Your task to perform on an android device: Open internet settings Image 0: 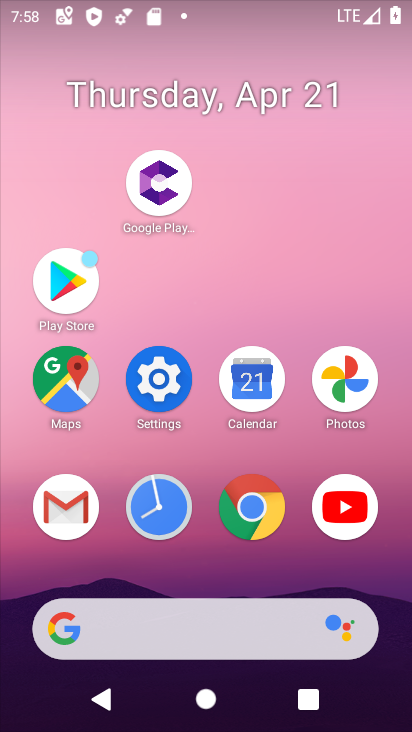
Step 0: click (155, 378)
Your task to perform on an android device: Open internet settings Image 1: 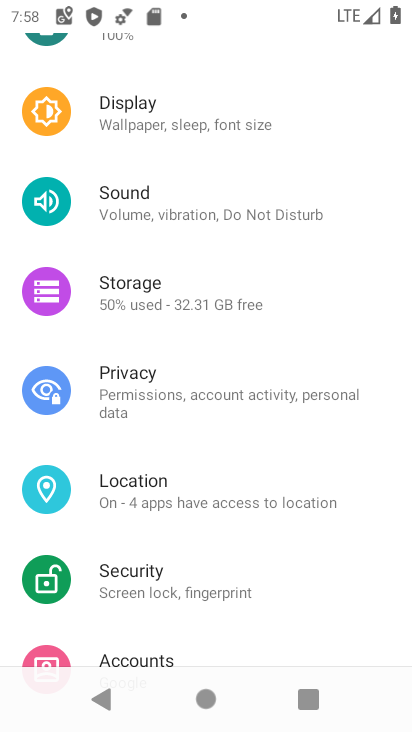
Step 1: drag from (348, 152) to (342, 619)
Your task to perform on an android device: Open internet settings Image 2: 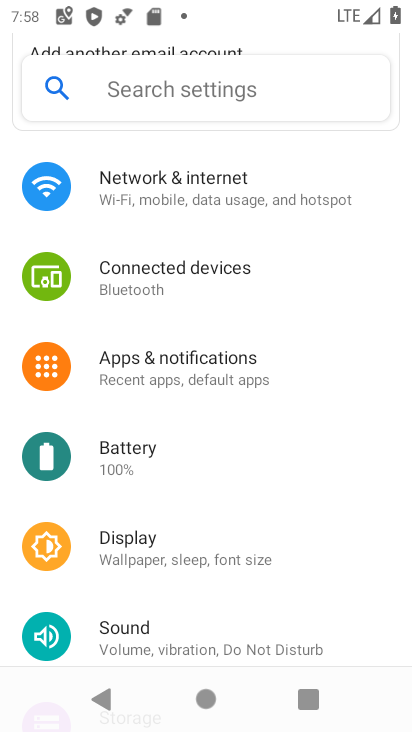
Step 2: click (161, 179)
Your task to perform on an android device: Open internet settings Image 3: 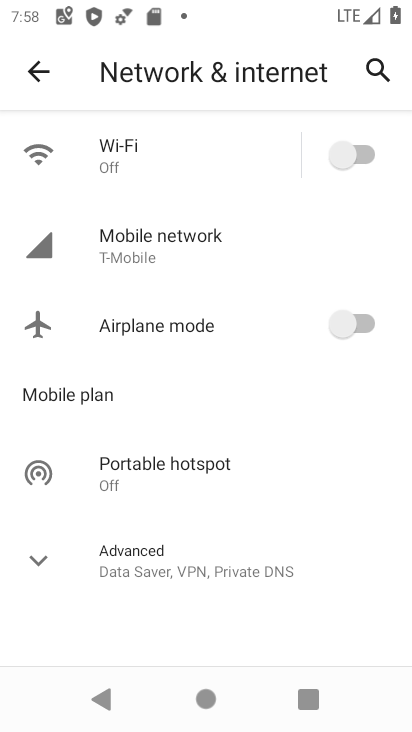
Step 3: click (169, 231)
Your task to perform on an android device: Open internet settings Image 4: 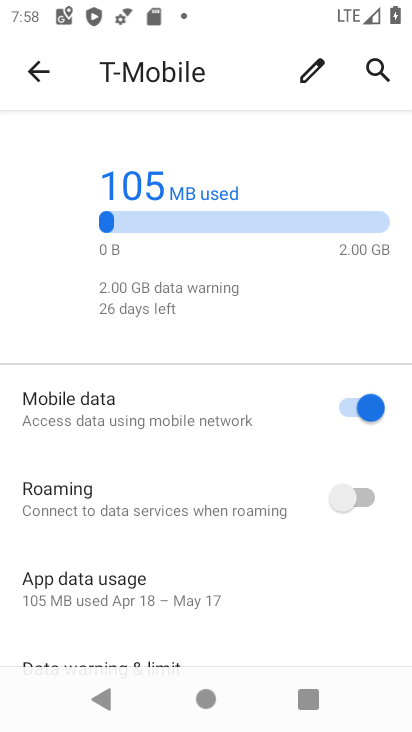
Step 4: task complete